Your task to perform on an android device: check android version Image 0: 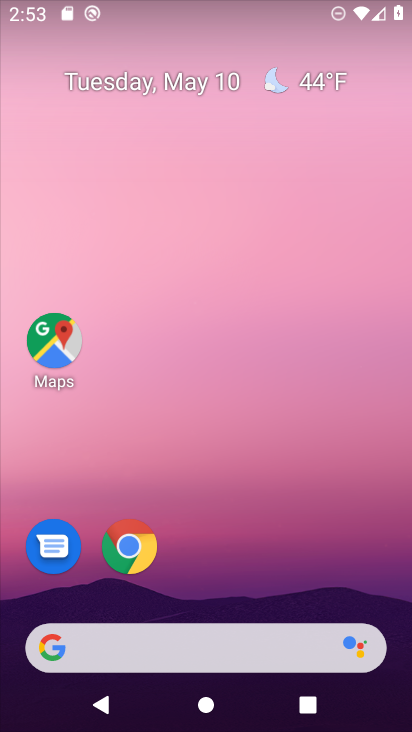
Step 0: drag from (152, 552) to (183, 2)
Your task to perform on an android device: check android version Image 1: 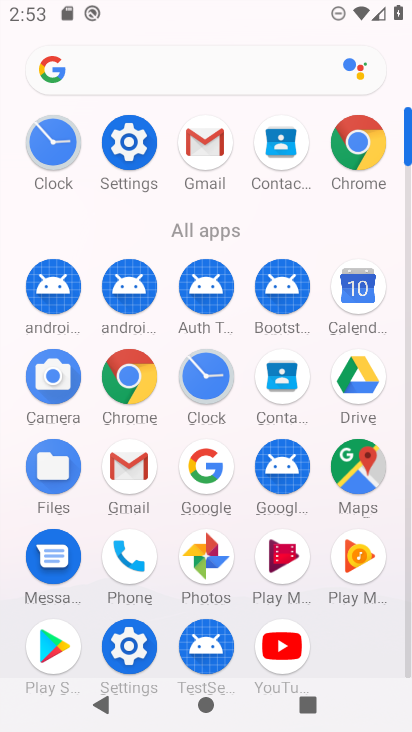
Step 1: click (127, 147)
Your task to perform on an android device: check android version Image 2: 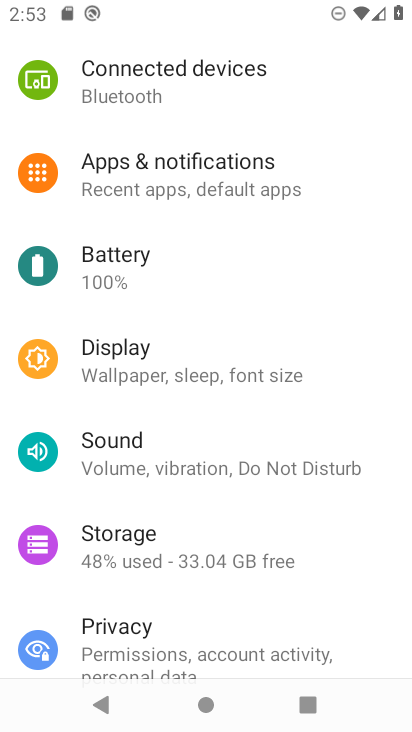
Step 2: drag from (261, 655) to (251, 157)
Your task to perform on an android device: check android version Image 3: 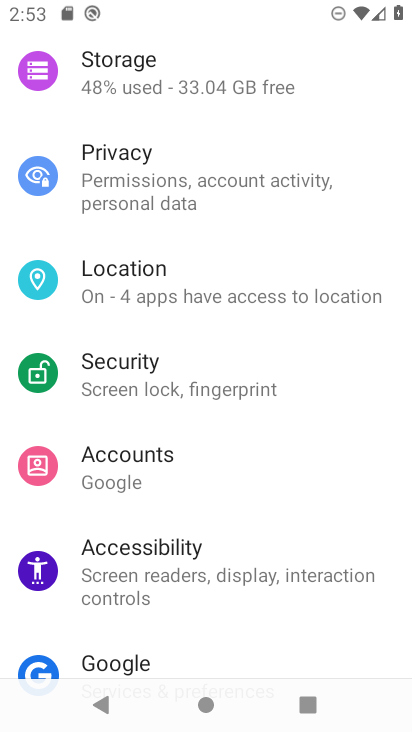
Step 3: drag from (190, 608) to (174, 264)
Your task to perform on an android device: check android version Image 4: 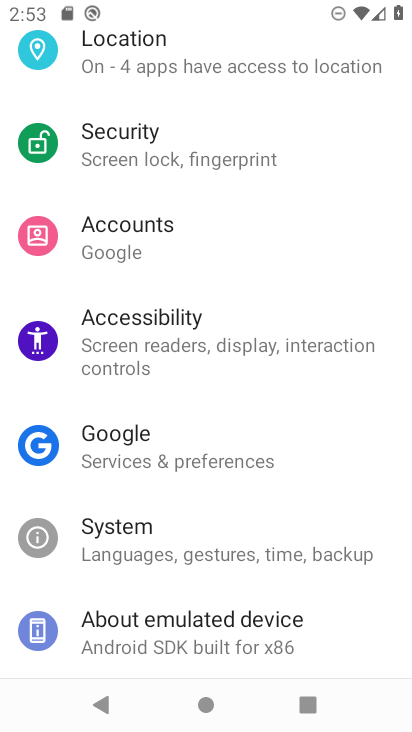
Step 4: click (168, 546)
Your task to perform on an android device: check android version Image 5: 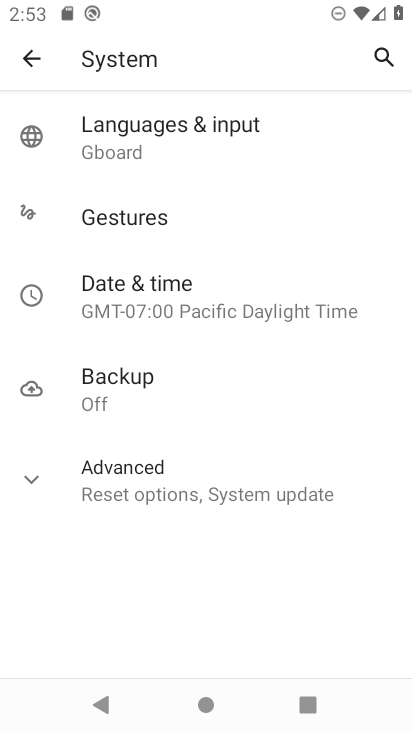
Step 5: click (30, 64)
Your task to perform on an android device: check android version Image 6: 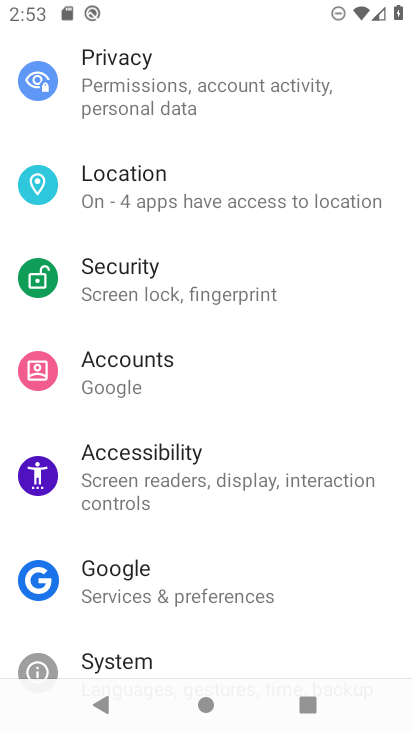
Step 6: drag from (277, 673) to (291, 188)
Your task to perform on an android device: check android version Image 7: 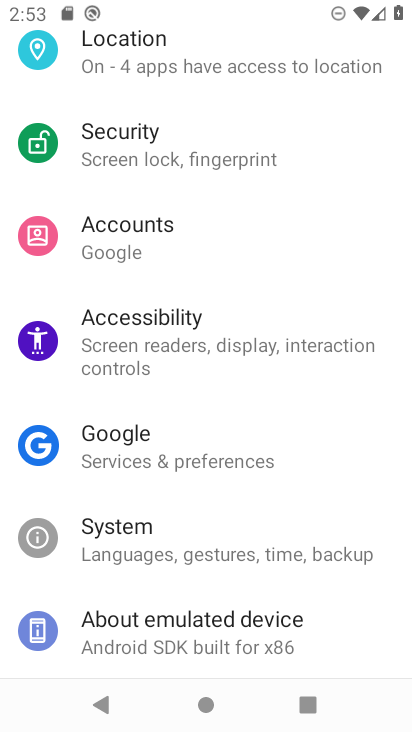
Step 7: drag from (232, 646) to (288, 15)
Your task to perform on an android device: check android version Image 8: 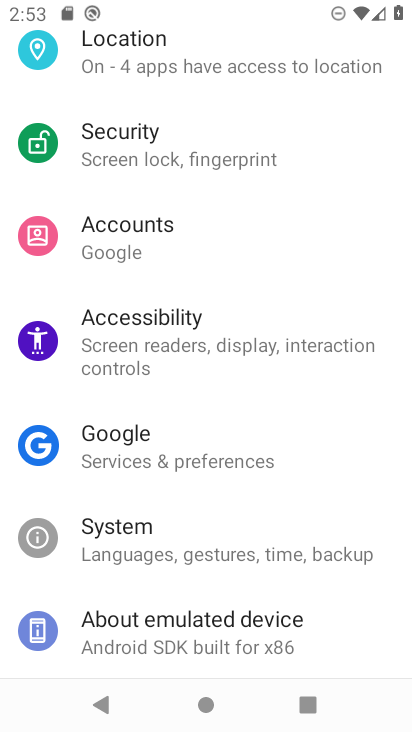
Step 8: click (230, 646)
Your task to perform on an android device: check android version Image 9: 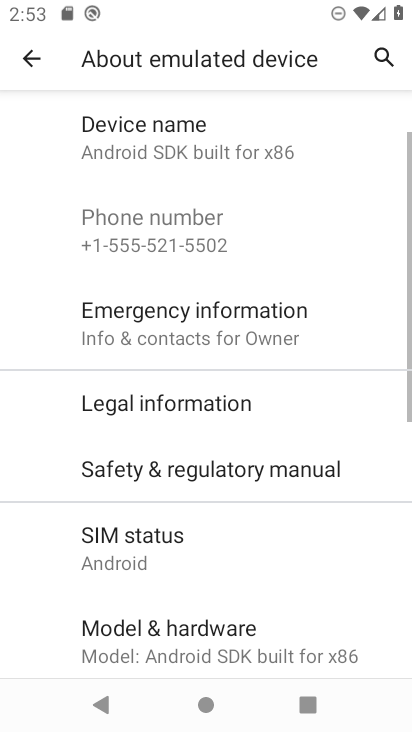
Step 9: click (199, 401)
Your task to perform on an android device: check android version Image 10: 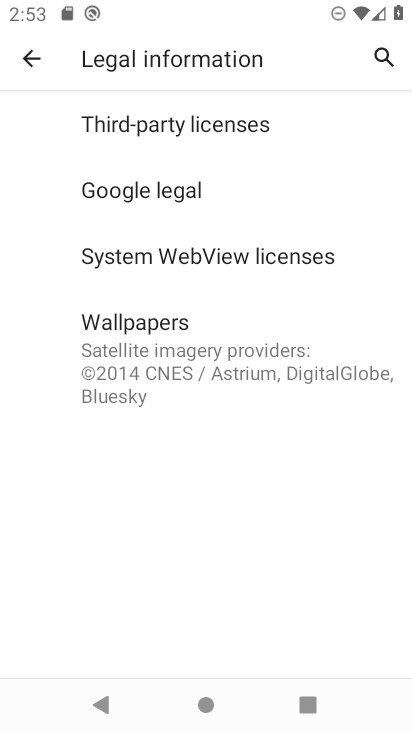
Step 10: task complete